Your task to perform on an android device: open app "Flipkart Online Shopping App" Image 0: 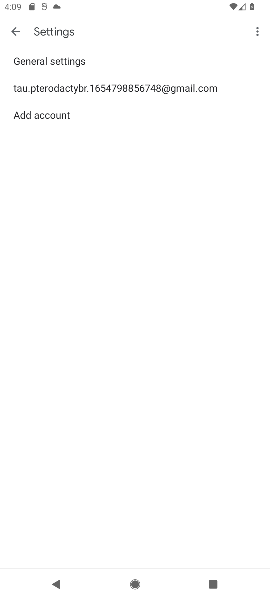
Step 0: drag from (161, 426) to (160, 145)
Your task to perform on an android device: open app "Flipkart Online Shopping App" Image 1: 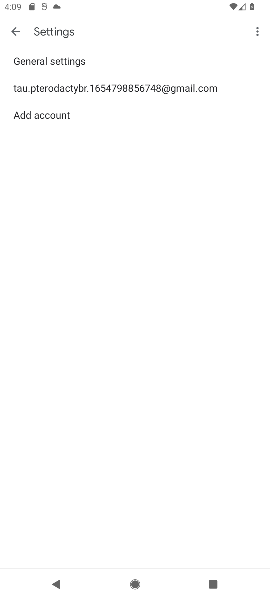
Step 1: press home button
Your task to perform on an android device: open app "Flipkart Online Shopping App" Image 2: 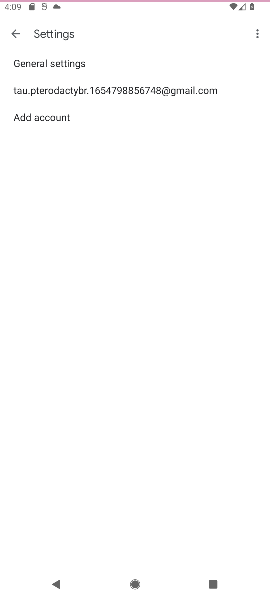
Step 2: drag from (119, 343) to (120, 218)
Your task to perform on an android device: open app "Flipkart Online Shopping App" Image 3: 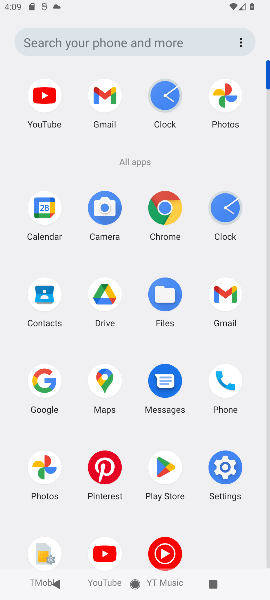
Step 3: click (162, 466)
Your task to perform on an android device: open app "Flipkart Online Shopping App" Image 4: 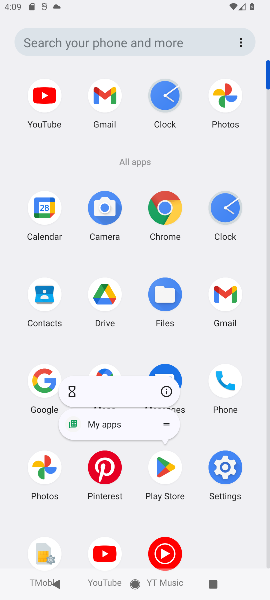
Step 4: click (166, 392)
Your task to perform on an android device: open app "Flipkart Online Shopping App" Image 5: 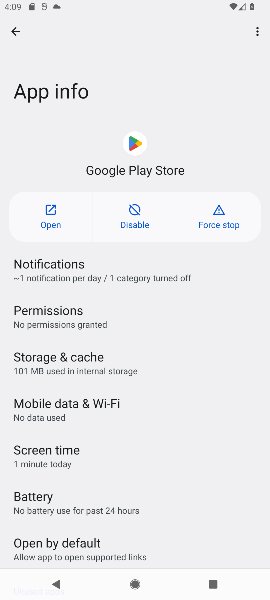
Step 5: click (41, 219)
Your task to perform on an android device: open app "Flipkart Online Shopping App" Image 6: 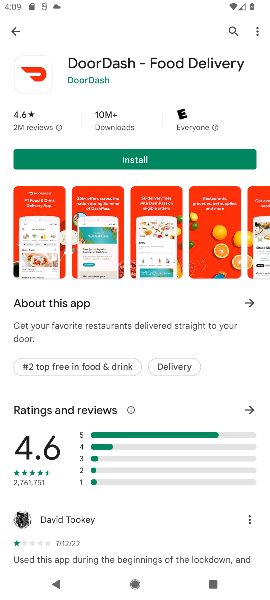
Step 6: drag from (202, 598) to (252, 381)
Your task to perform on an android device: open app "Flipkart Online Shopping App" Image 7: 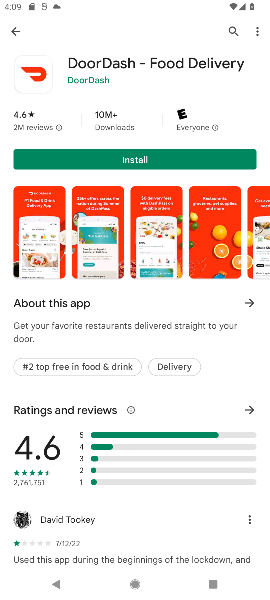
Step 7: click (238, 29)
Your task to perform on an android device: open app "Flipkart Online Shopping App" Image 8: 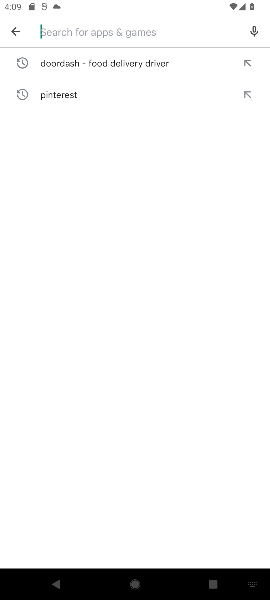
Step 8: type "Flipkart Online Shopping App"
Your task to perform on an android device: open app "Flipkart Online Shopping App" Image 9: 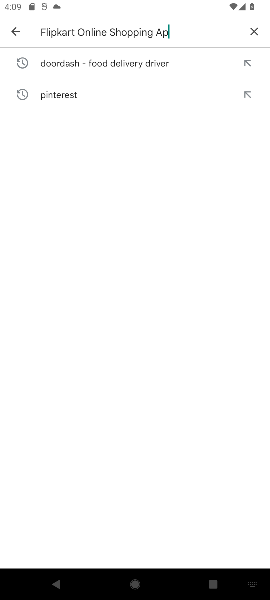
Step 9: type ""
Your task to perform on an android device: open app "Flipkart Online Shopping App" Image 10: 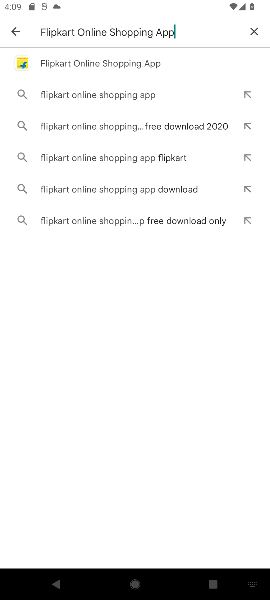
Step 10: click (62, 62)
Your task to perform on an android device: open app "Flipkart Online Shopping App" Image 11: 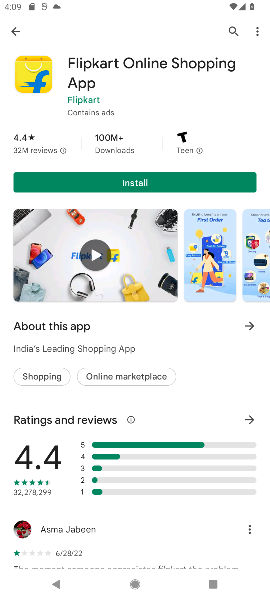
Step 11: click (135, 74)
Your task to perform on an android device: open app "Flipkart Online Shopping App" Image 12: 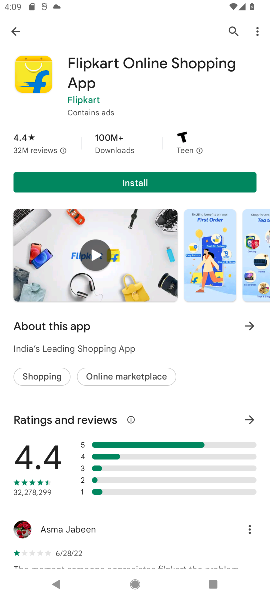
Step 12: task complete